Your task to perform on an android device: create a new album in the google photos Image 0: 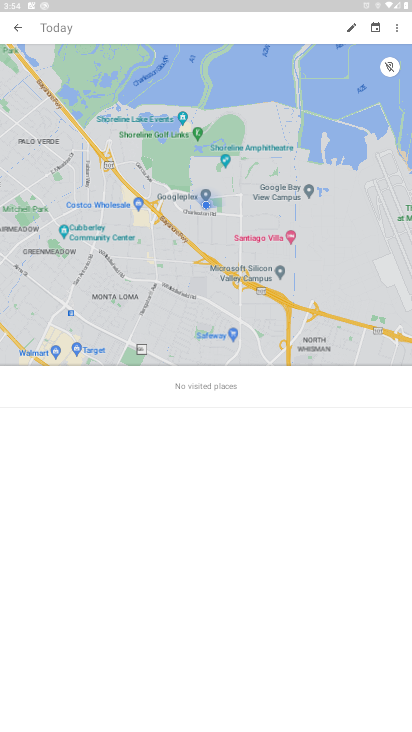
Step 0: press home button
Your task to perform on an android device: create a new album in the google photos Image 1: 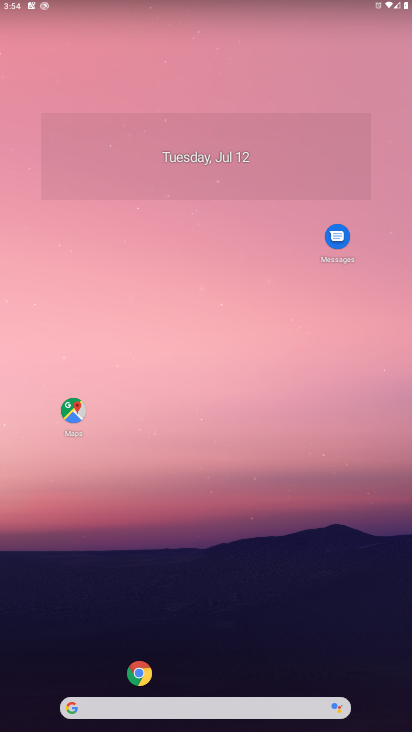
Step 1: drag from (23, 666) to (167, 289)
Your task to perform on an android device: create a new album in the google photos Image 2: 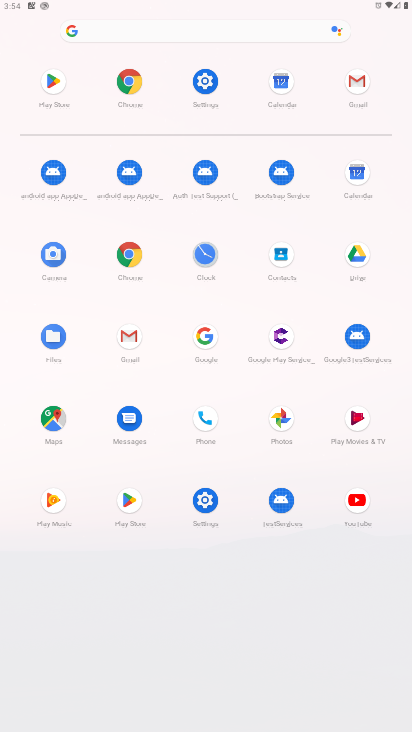
Step 2: click (293, 415)
Your task to perform on an android device: create a new album in the google photos Image 3: 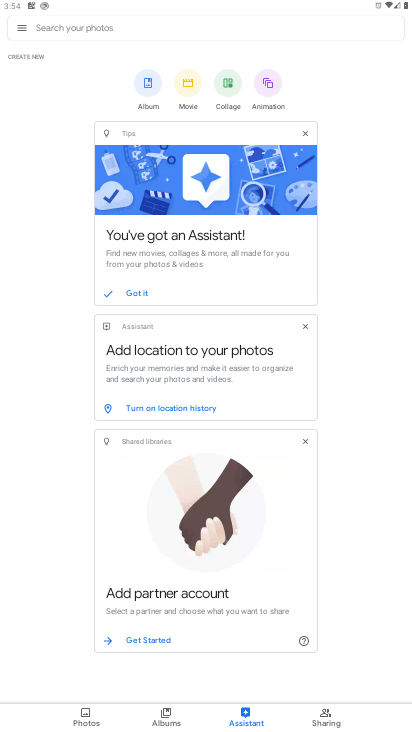
Step 3: click (157, 78)
Your task to perform on an android device: create a new album in the google photos Image 4: 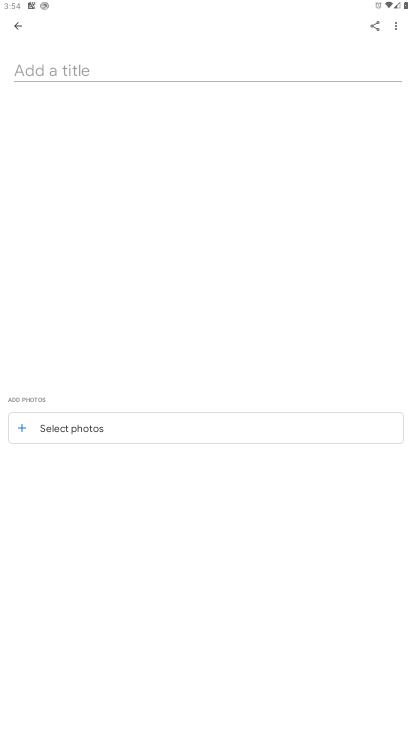
Step 4: click (399, 22)
Your task to perform on an android device: create a new album in the google photos Image 5: 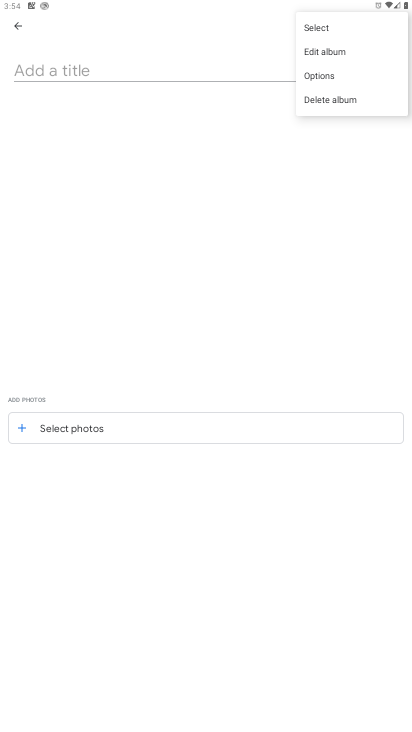
Step 5: click (225, 162)
Your task to perform on an android device: create a new album in the google photos Image 6: 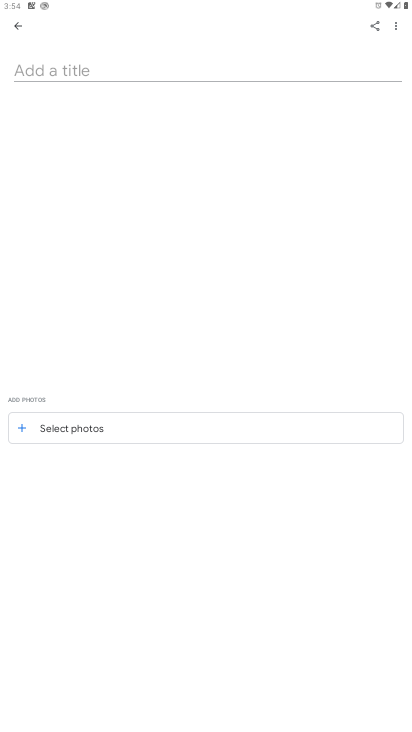
Step 6: task complete